Your task to perform on an android device: Add energizer triple a to the cart on walmart.com, then select checkout. Image 0: 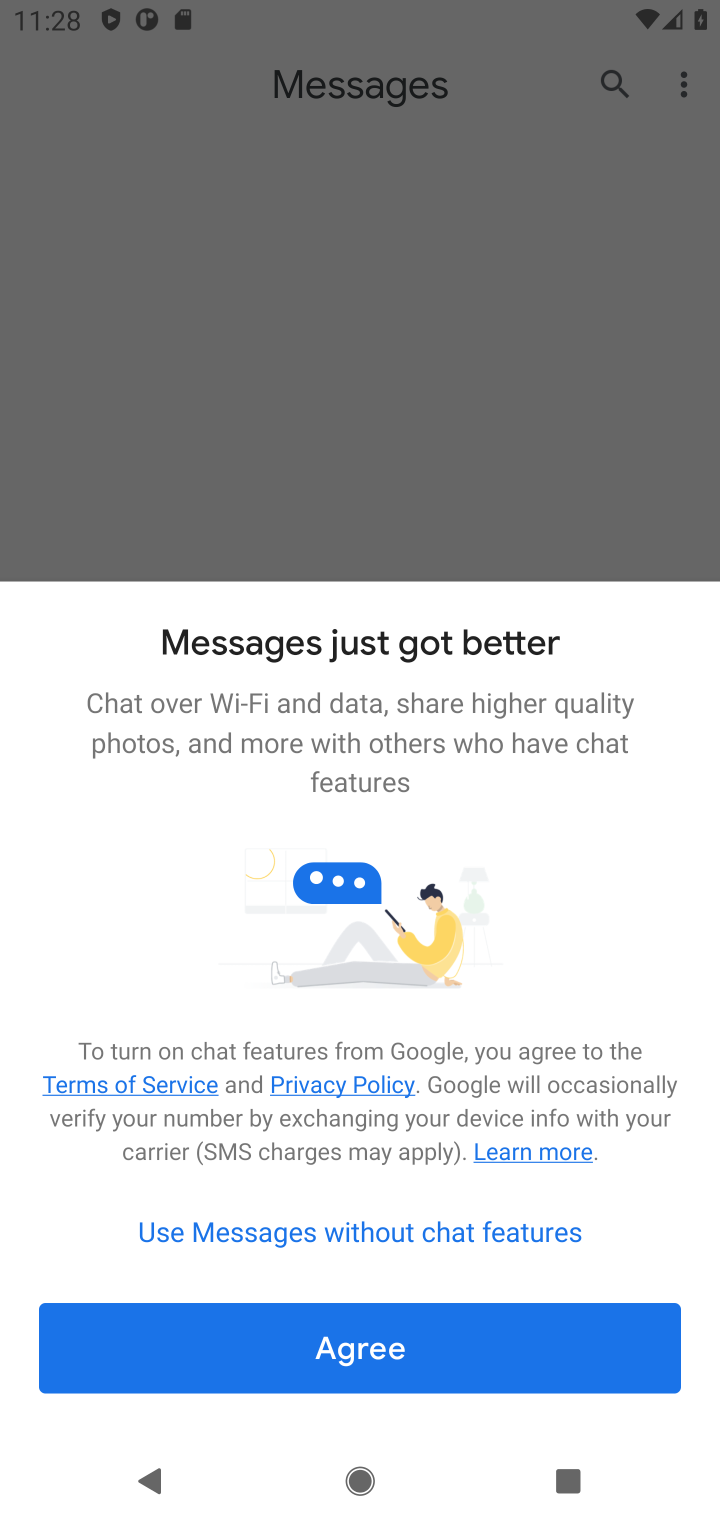
Step 0: press home button
Your task to perform on an android device: Add energizer triple a to the cart on walmart.com, then select checkout. Image 1: 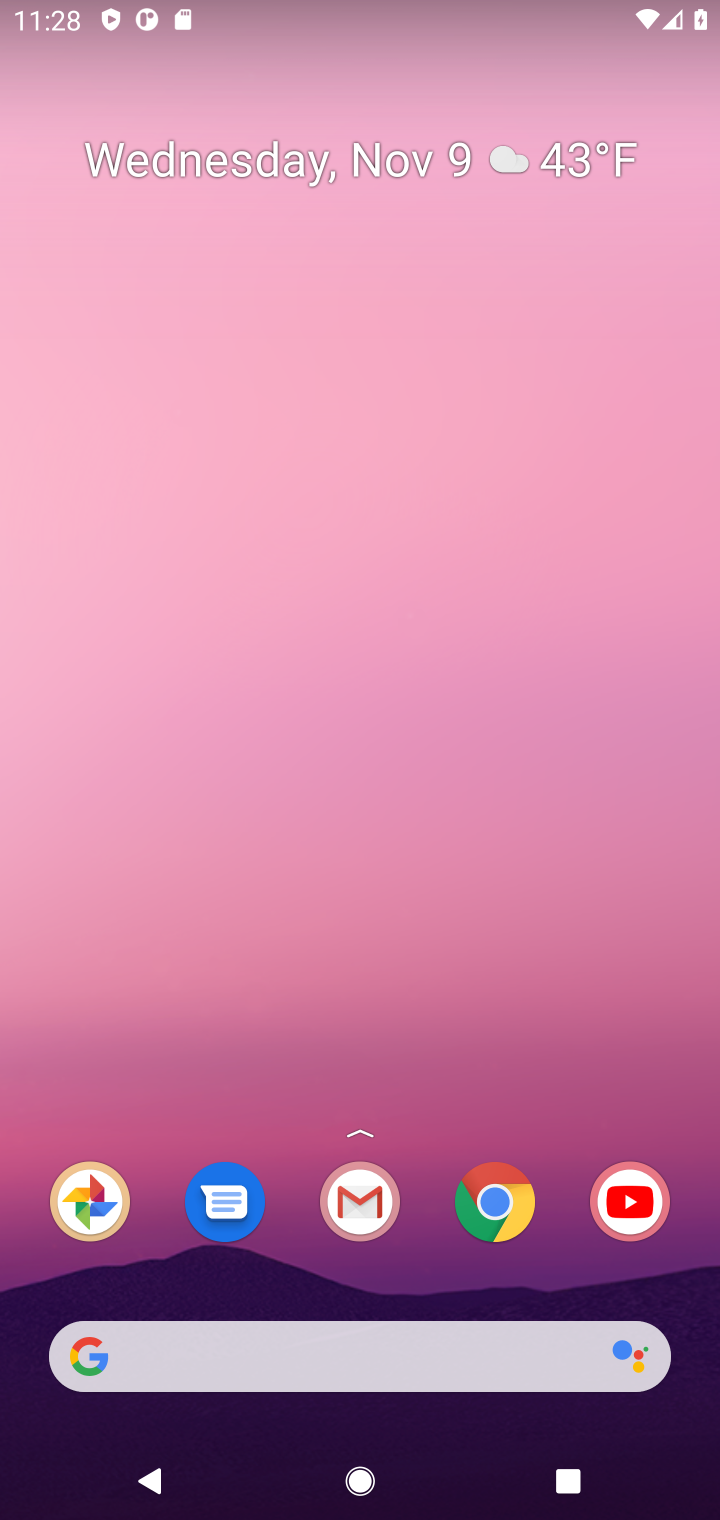
Step 1: click (511, 1199)
Your task to perform on an android device: Add energizer triple a to the cart on walmart.com, then select checkout. Image 2: 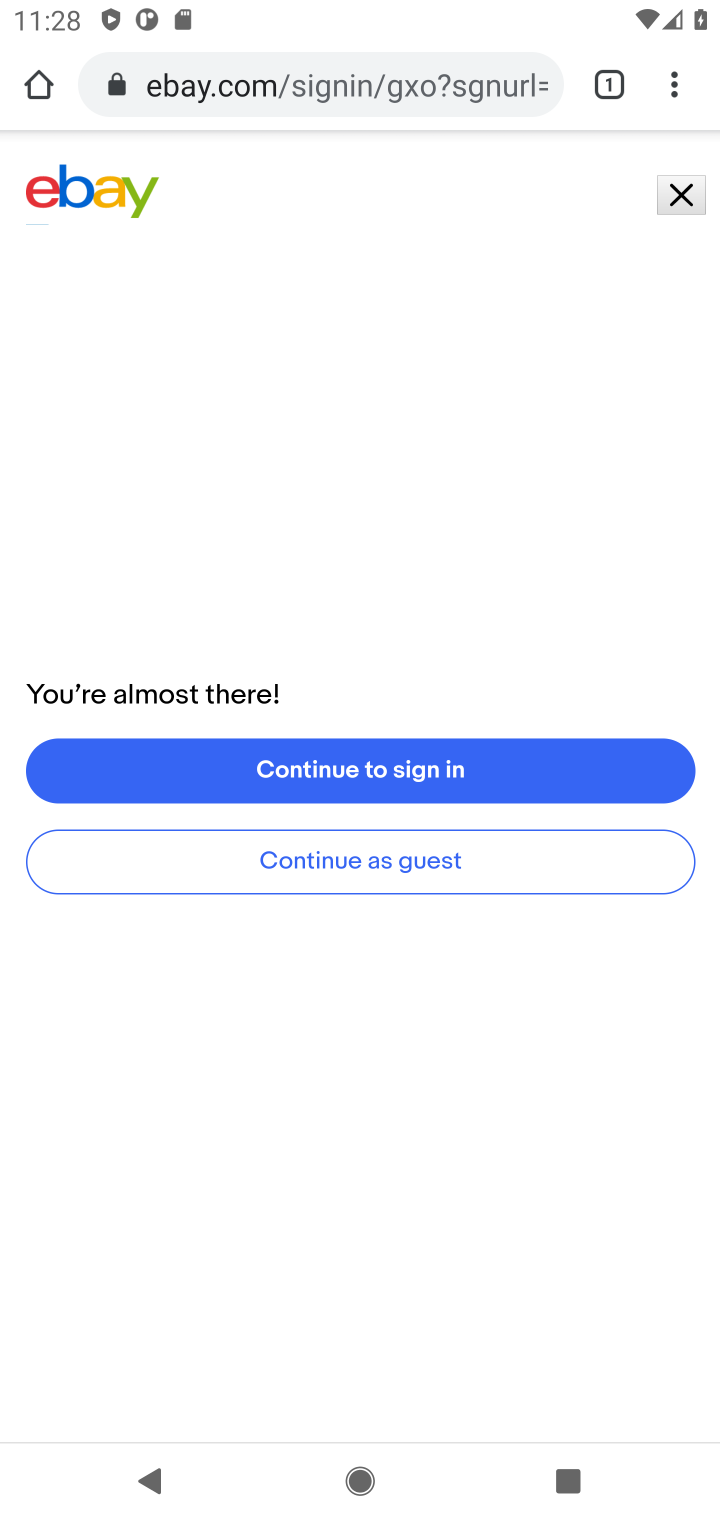
Step 2: click (425, 73)
Your task to perform on an android device: Add energizer triple a to the cart on walmart.com, then select checkout. Image 3: 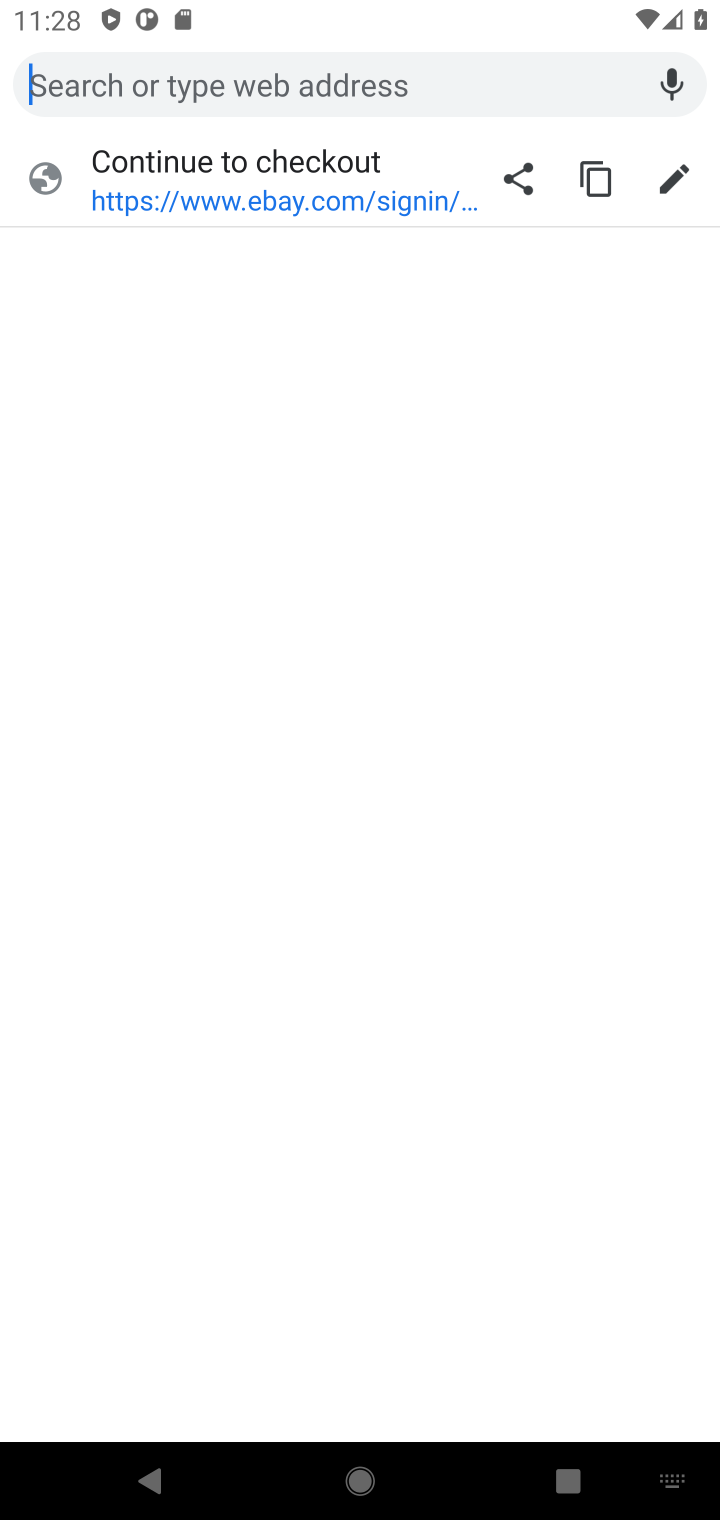
Step 3: type "walmart.com"
Your task to perform on an android device: Add energizer triple a to the cart on walmart.com, then select checkout. Image 4: 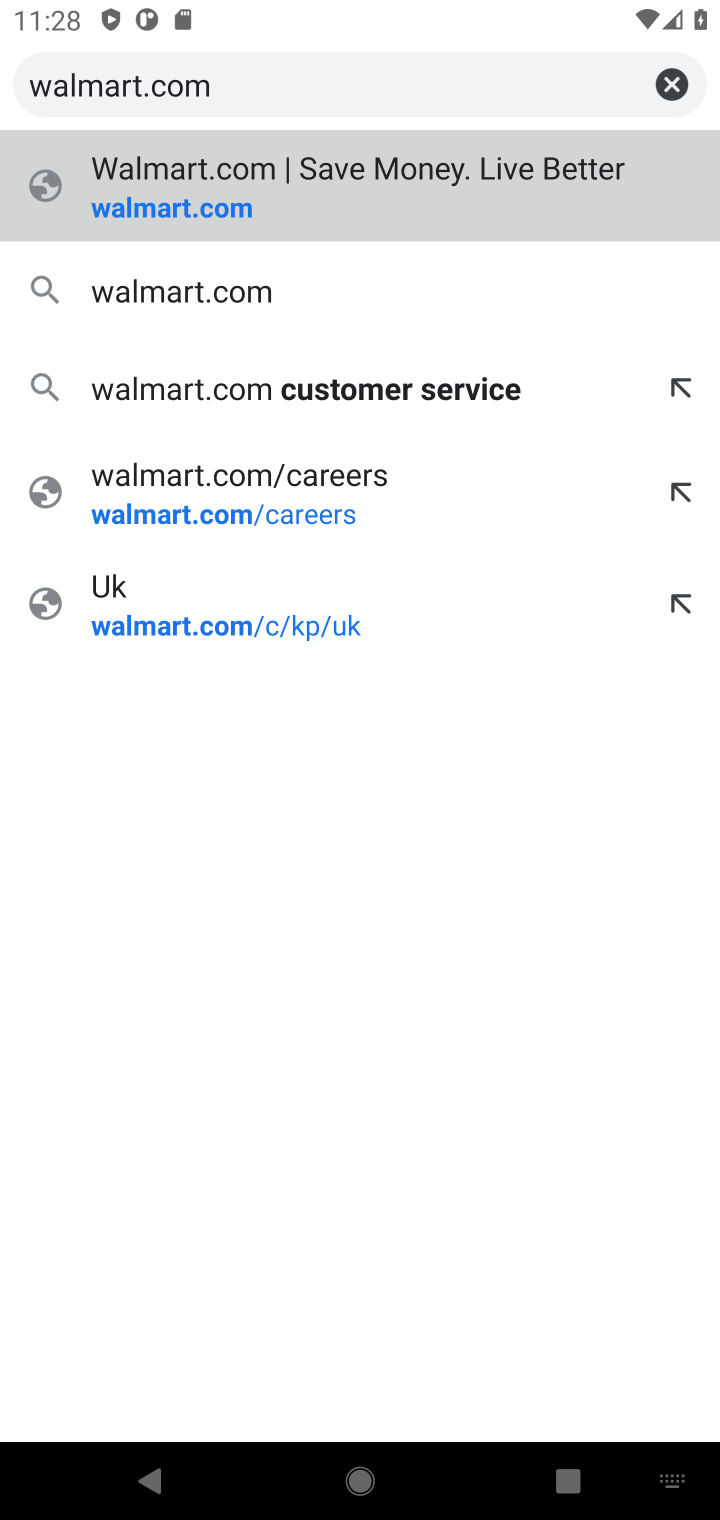
Step 4: press enter
Your task to perform on an android device: Add energizer triple a to the cart on walmart.com, then select checkout. Image 5: 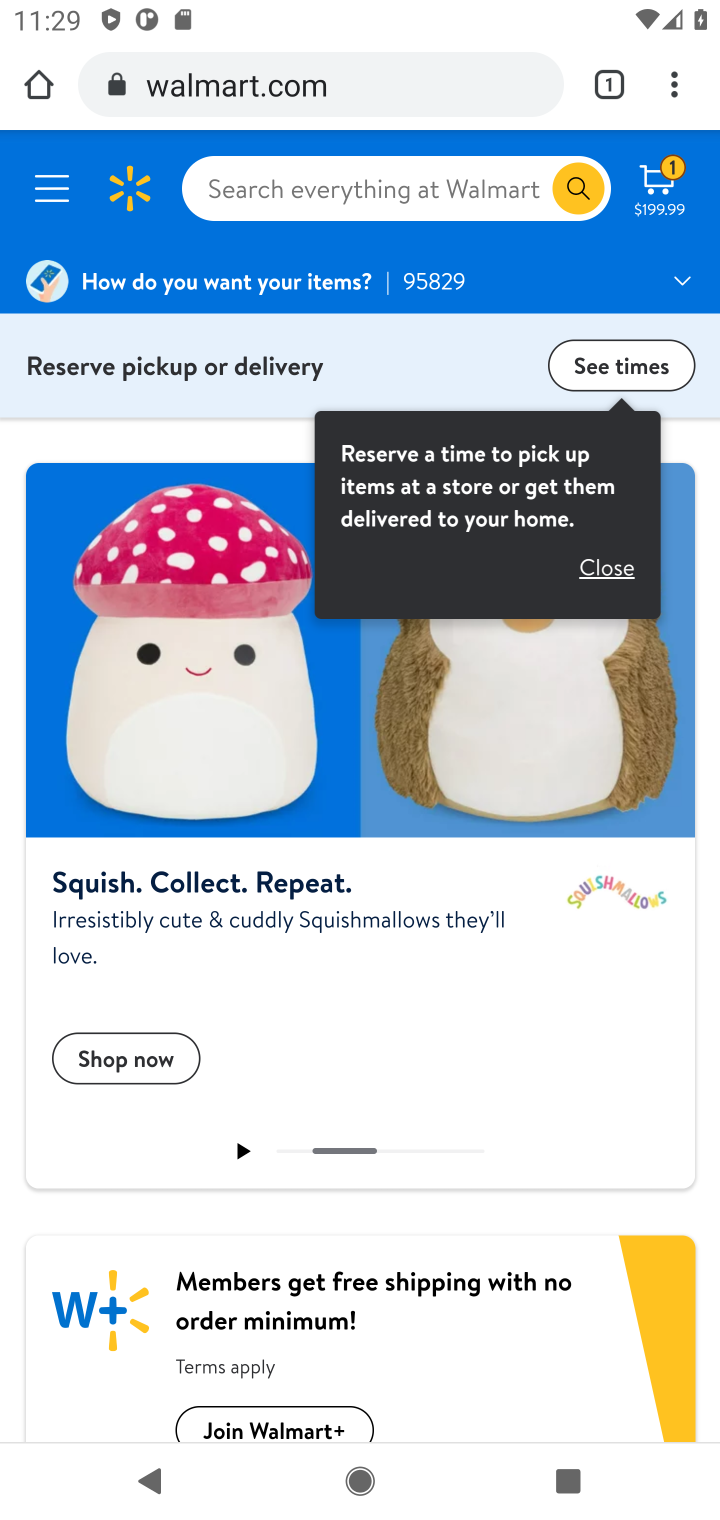
Step 5: click (420, 180)
Your task to perform on an android device: Add energizer triple a to the cart on walmart.com, then select checkout. Image 6: 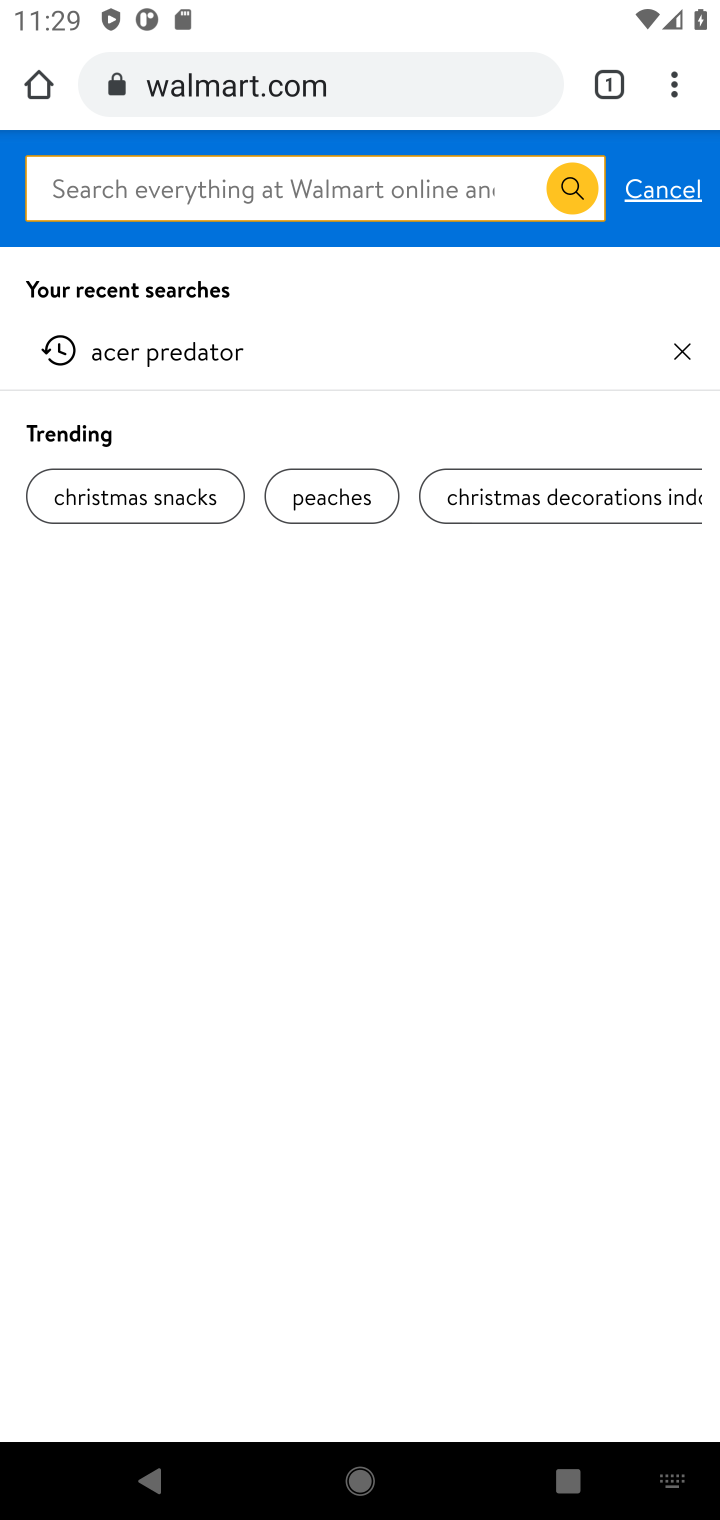
Step 6: type "energizer triple a"
Your task to perform on an android device: Add energizer triple a to the cart on walmart.com, then select checkout. Image 7: 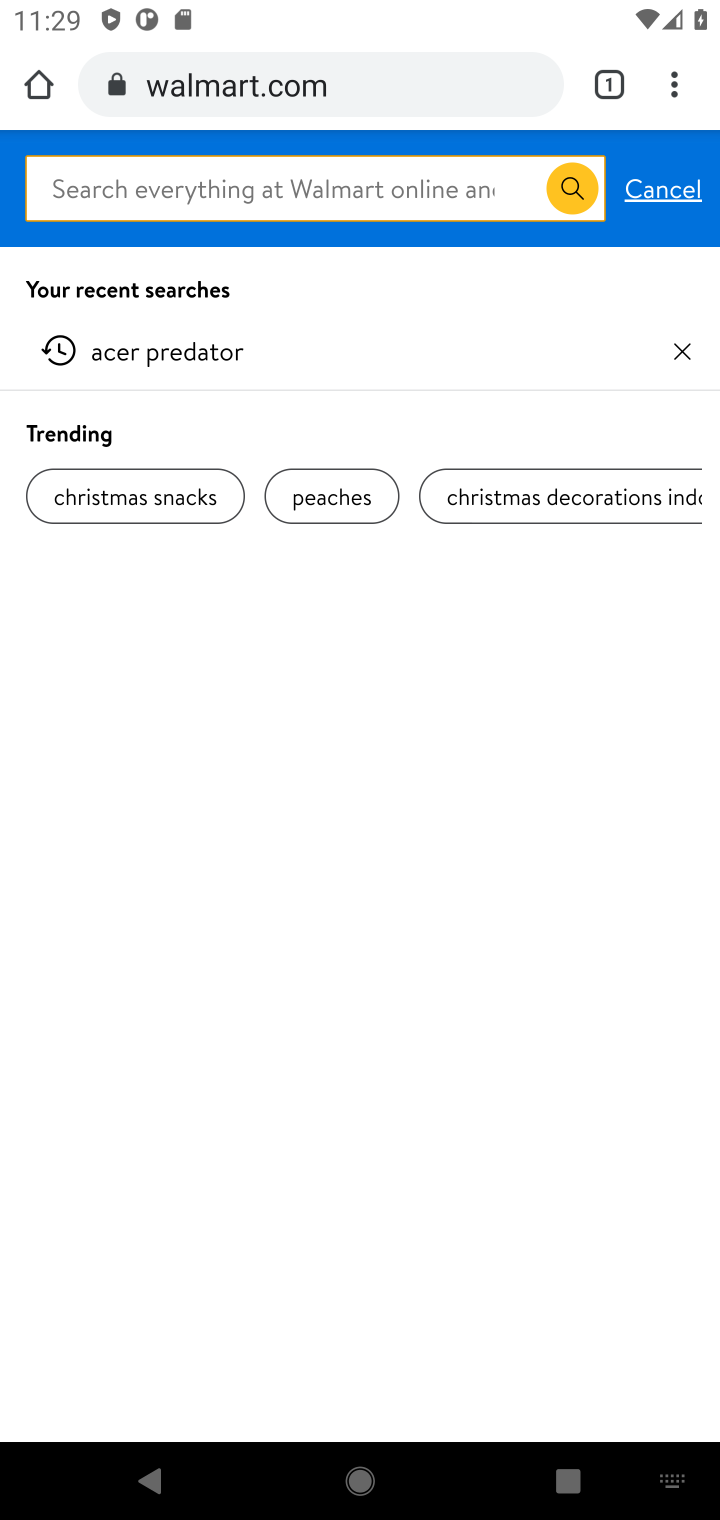
Step 7: click (328, 191)
Your task to perform on an android device: Add energizer triple a to the cart on walmart.com, then select checkout. Image 8: 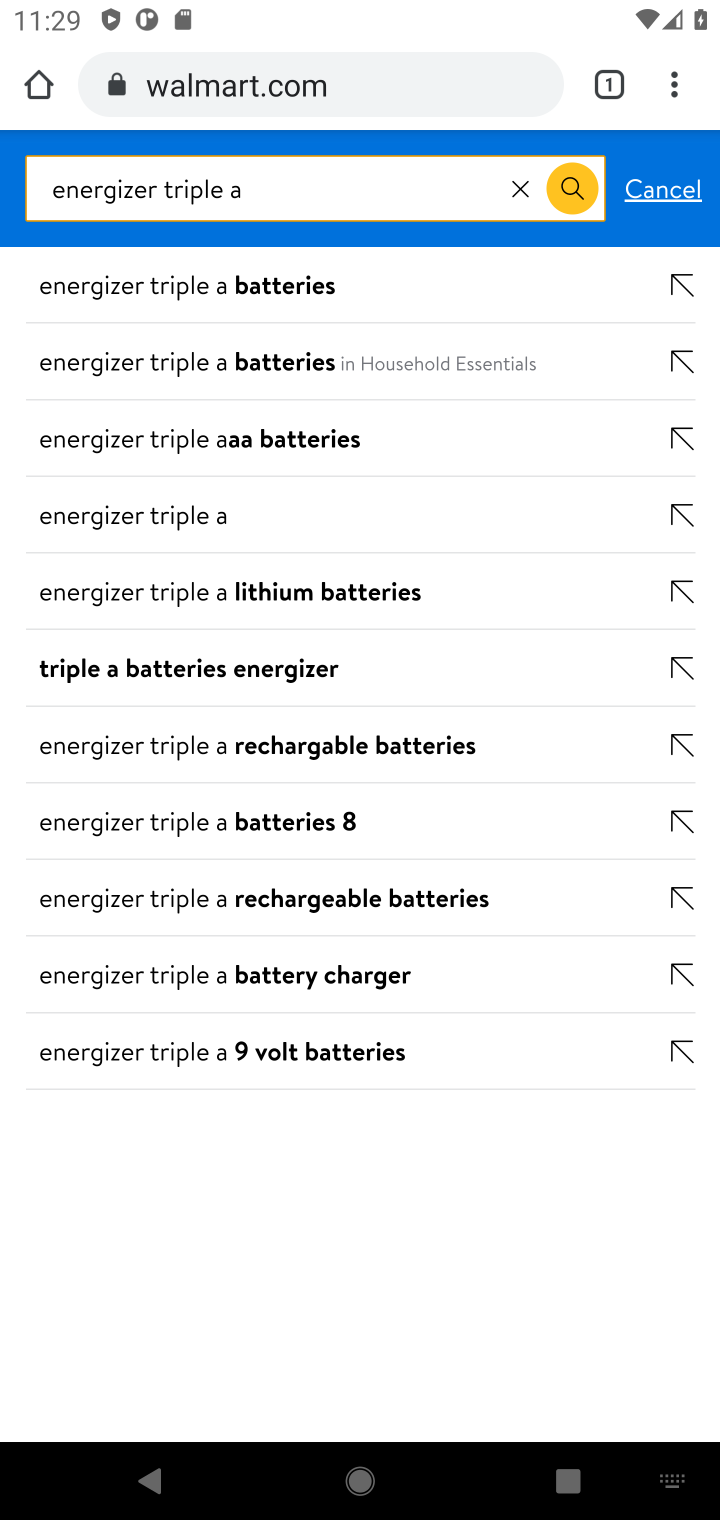
Step 8: type "energizer triple a"
Your task to perform on an android device: Add energizer triple a to the cart on walmart.com, then select checkout. Image 9: 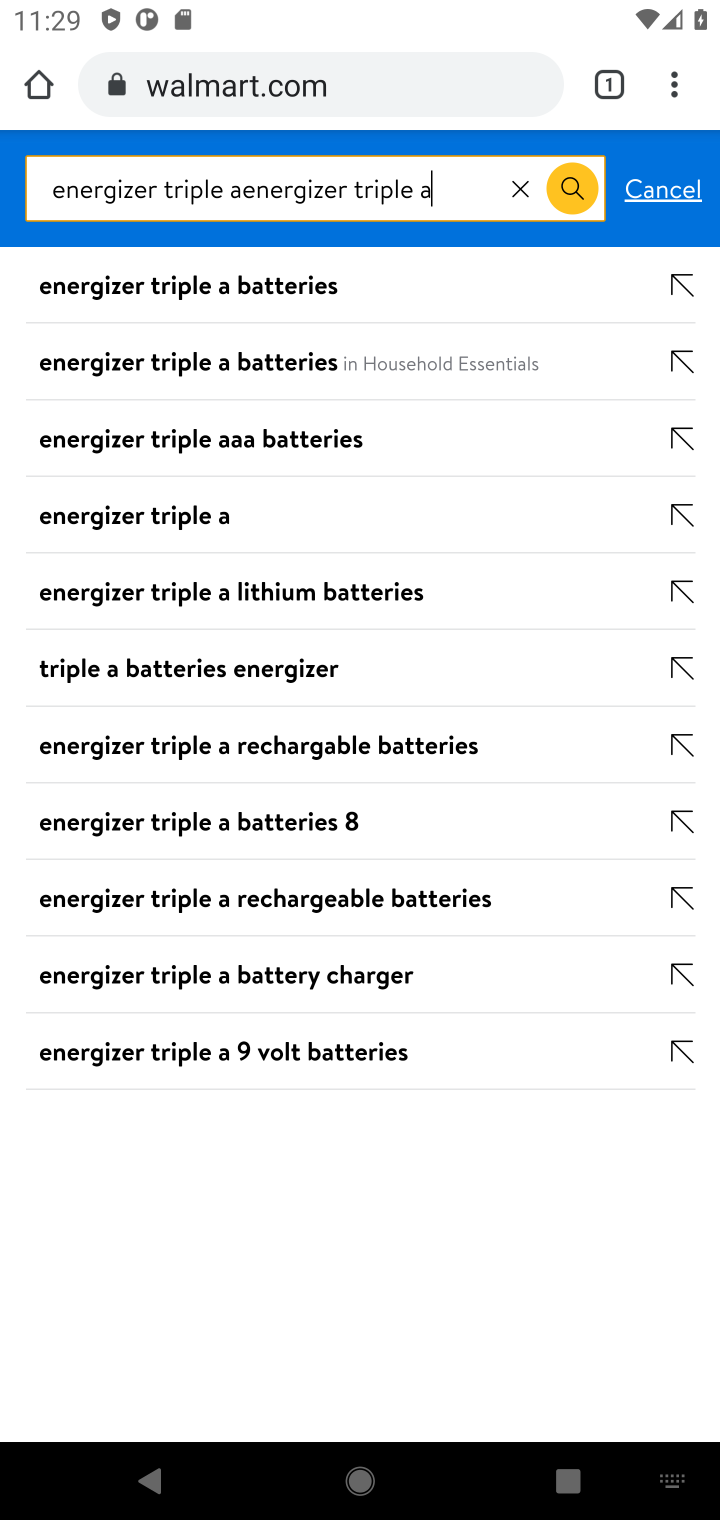
Step 9: press enter
Your task to perform on an android device: Add energizer triple a to the cart on walmart.com, then select checkout. Image 10: 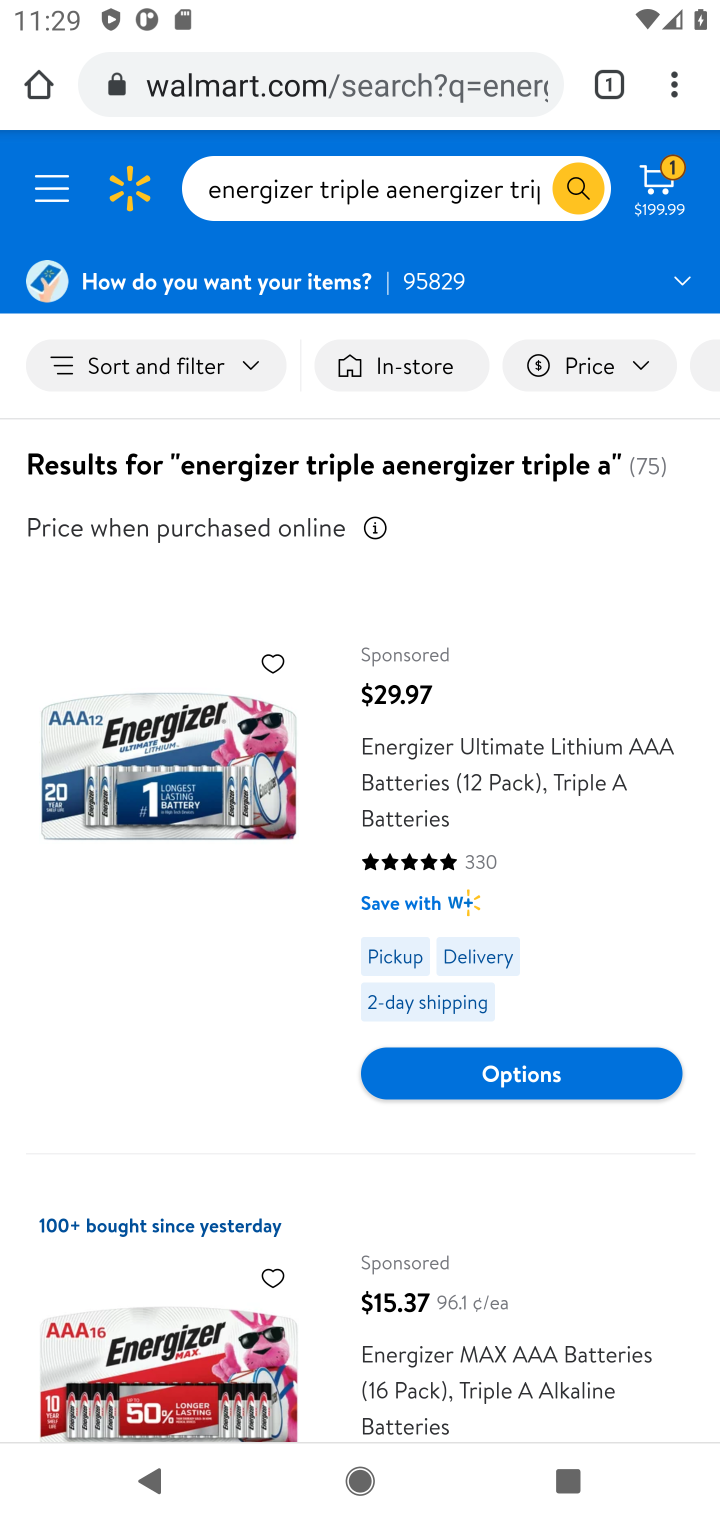
Step 10: click (143, 783)
Your task to perform on an android device: Add energizer triple a to the cart on walmart.com, then select checkout. Image 11: 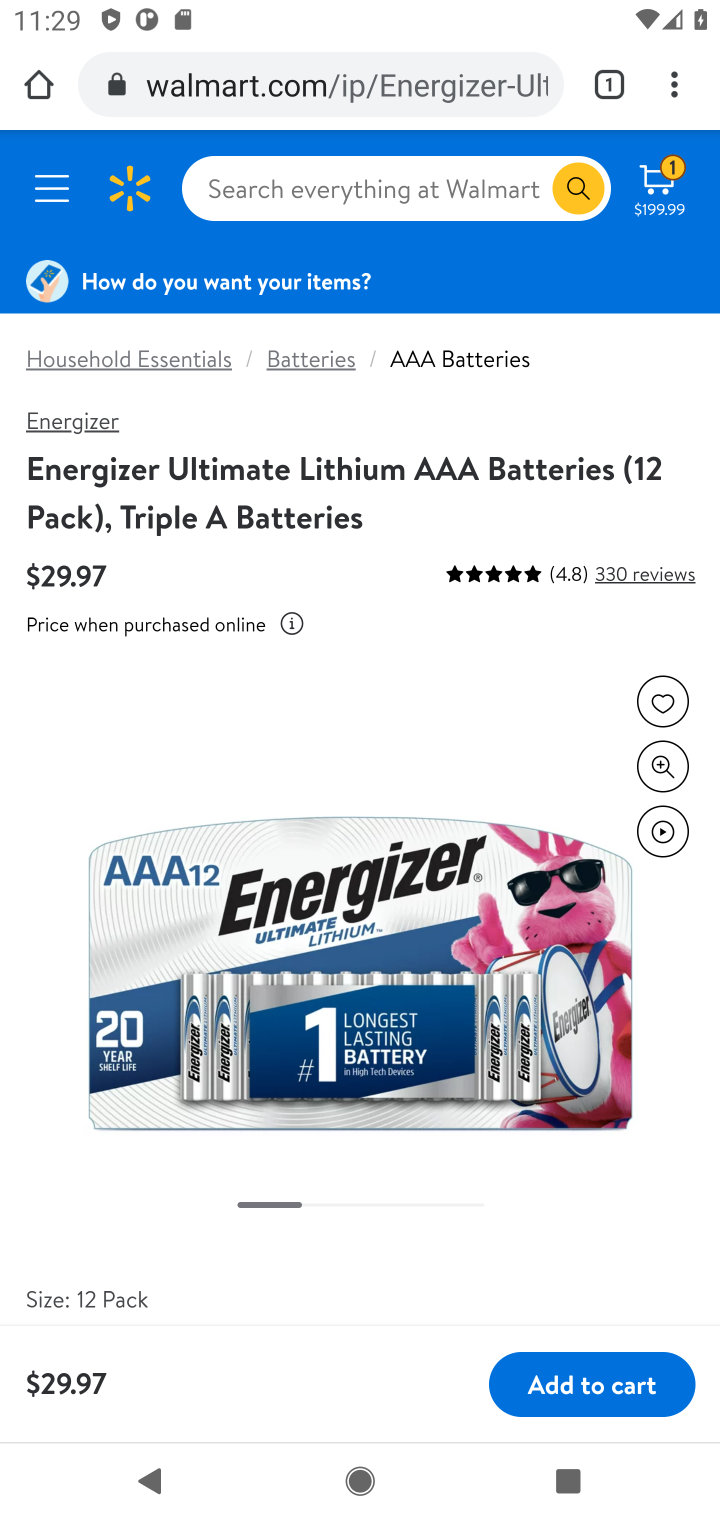
Step 11: click (604, 1387)
Your task to perform on an android device: Add energizer triple a to the cart on walmart.com, then select checkout. Image 12: 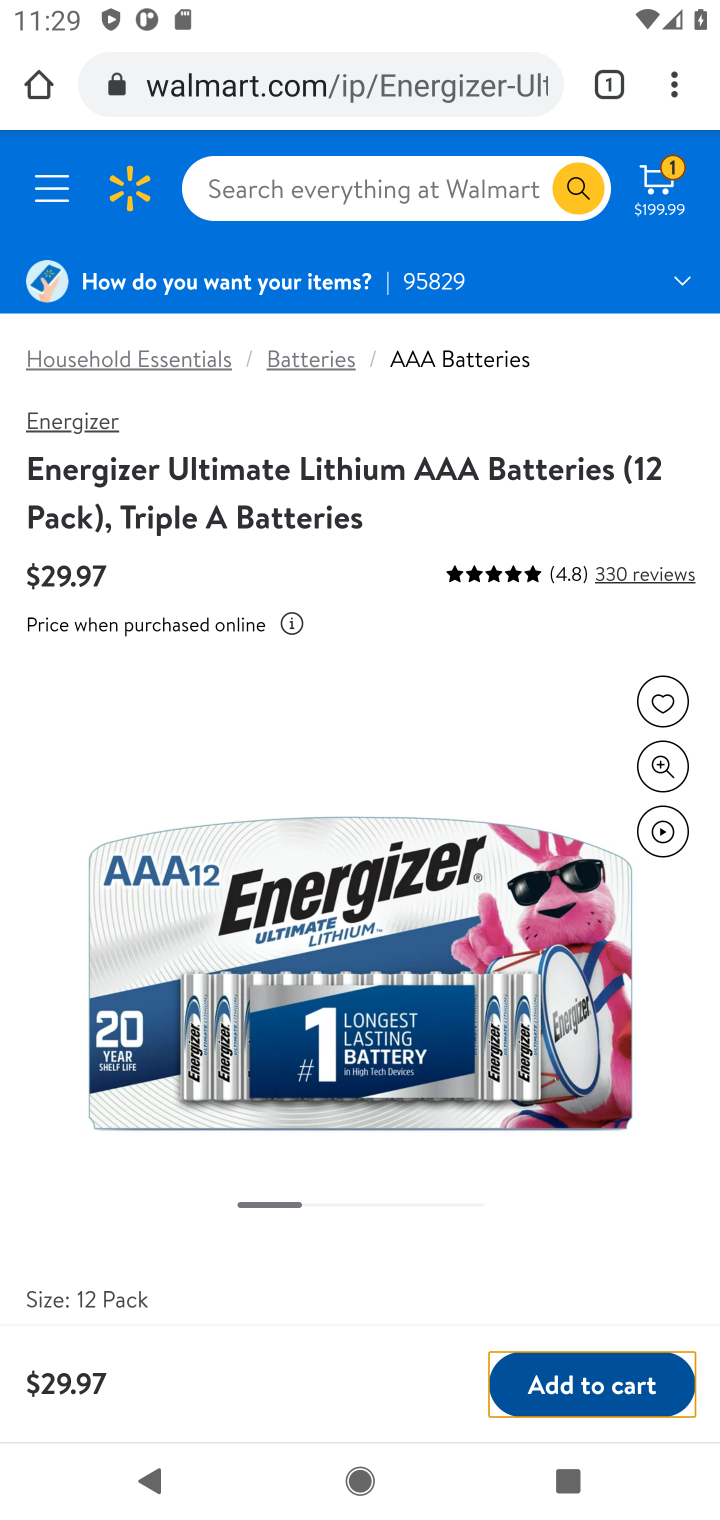
Step 12: click (605, 1386)
Your task to perform on an android device: Add energizer triple a to the cart on walmart.com, then select checkout. Image 13: 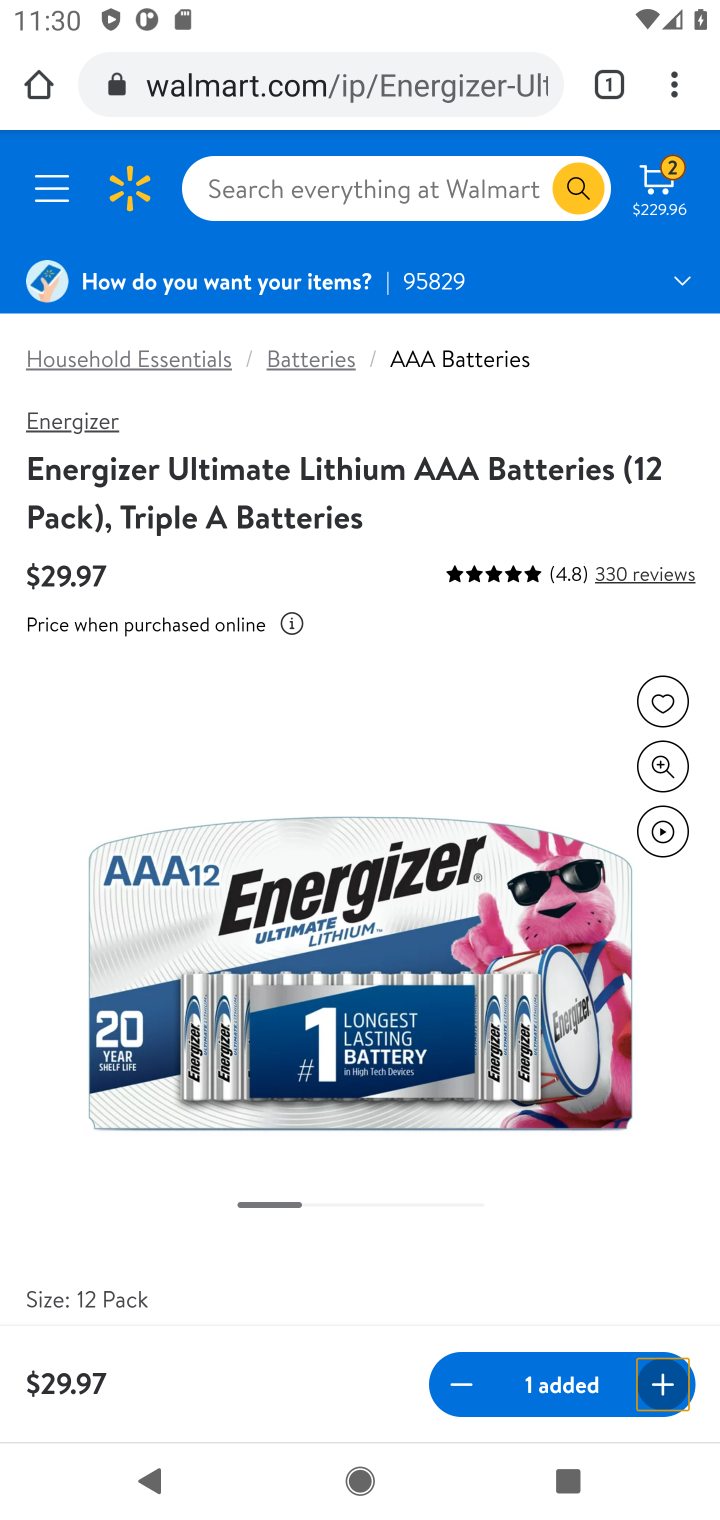
Step 13: click (657, 173)
Your task to perform on an android device: Add energizer triple a to the cart on walmart.com, then select checkout. Image 14: 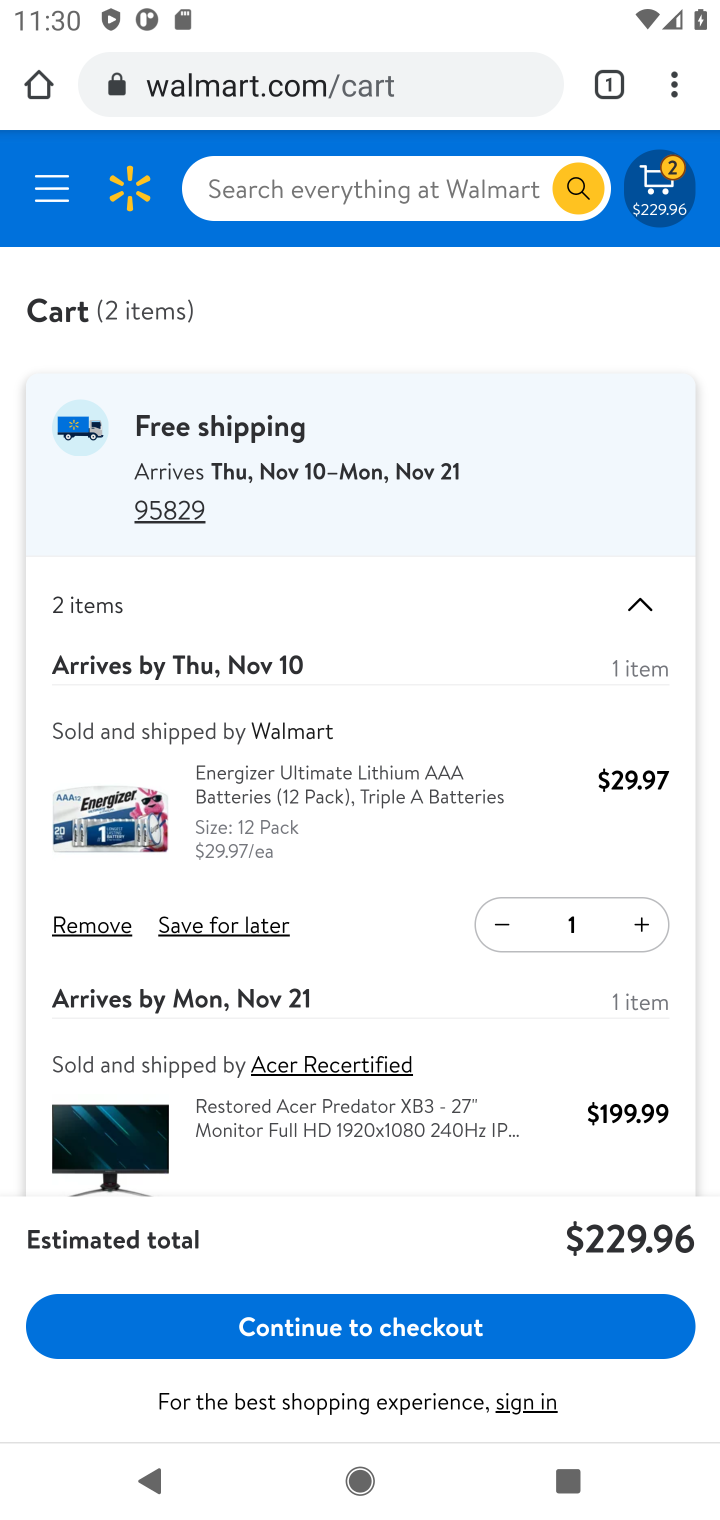
Step 14: click (401, 1320)
Your task to perform on an android device: Add energizer triple a to the cart on walmart.com, then select checkout. Image 15: 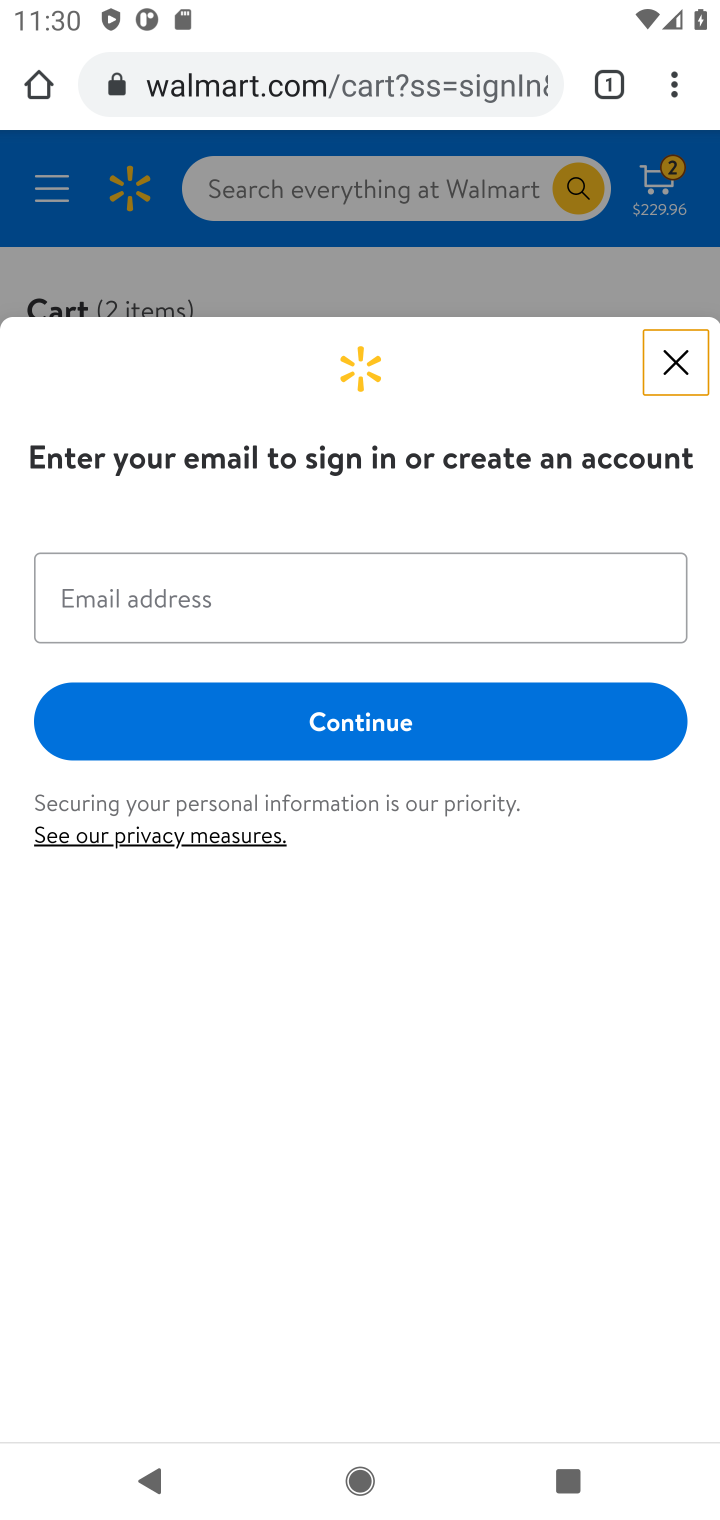
Step 15: task complete